Your task to perform on an android device: Open ESPN.com Image 0: 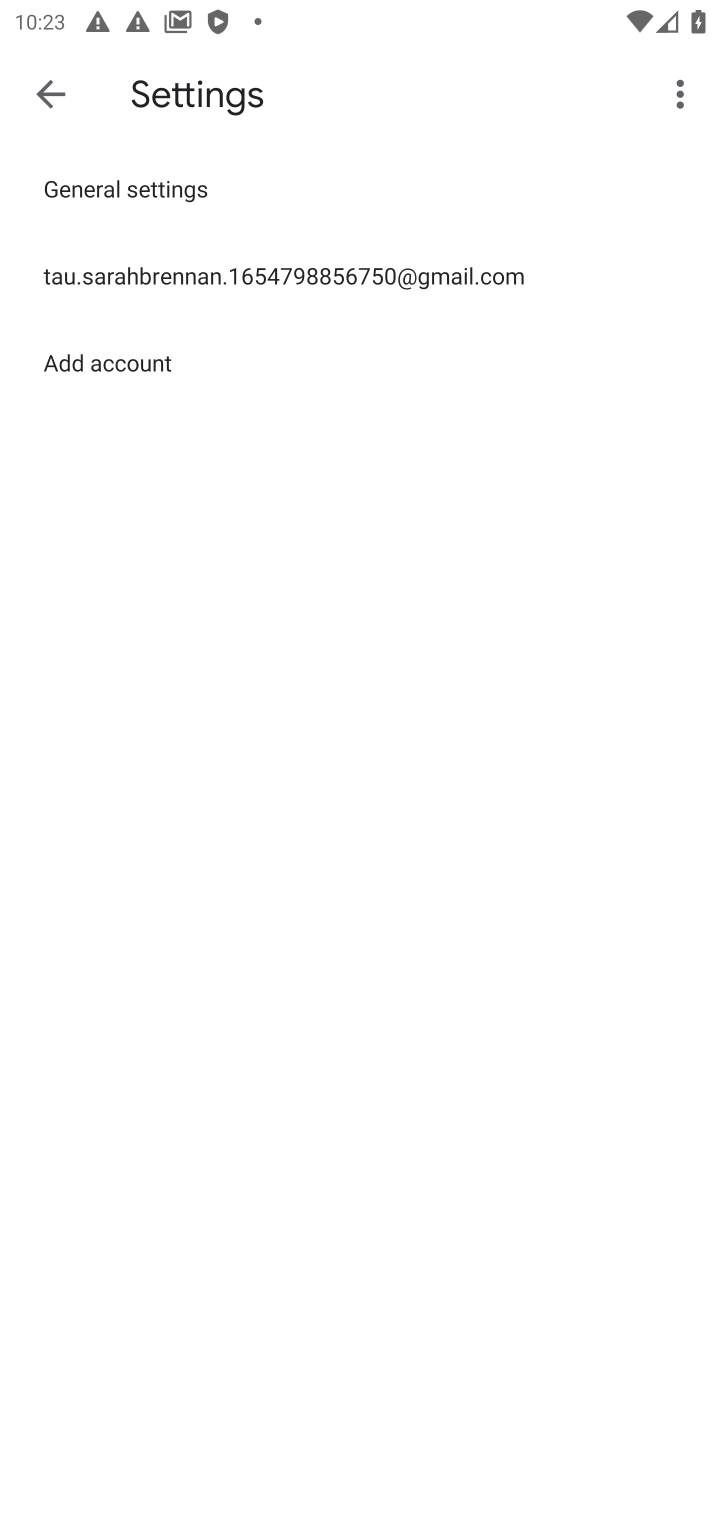
Step 0: press back button
Your task to perform on an android device: Open ESPN.com Image 1: 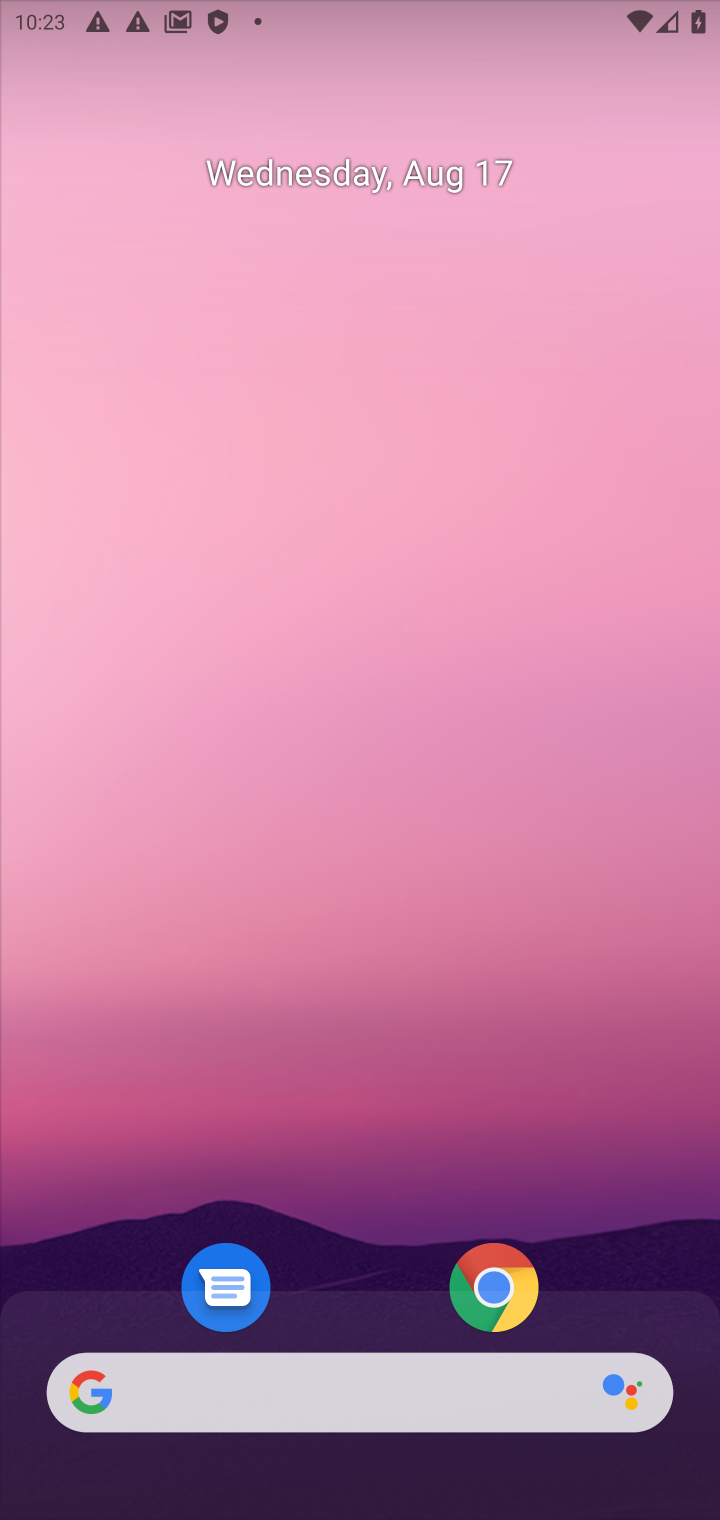
Step 1: press back button
Your task to perform on an android device: Open ESPN.com Image 2: 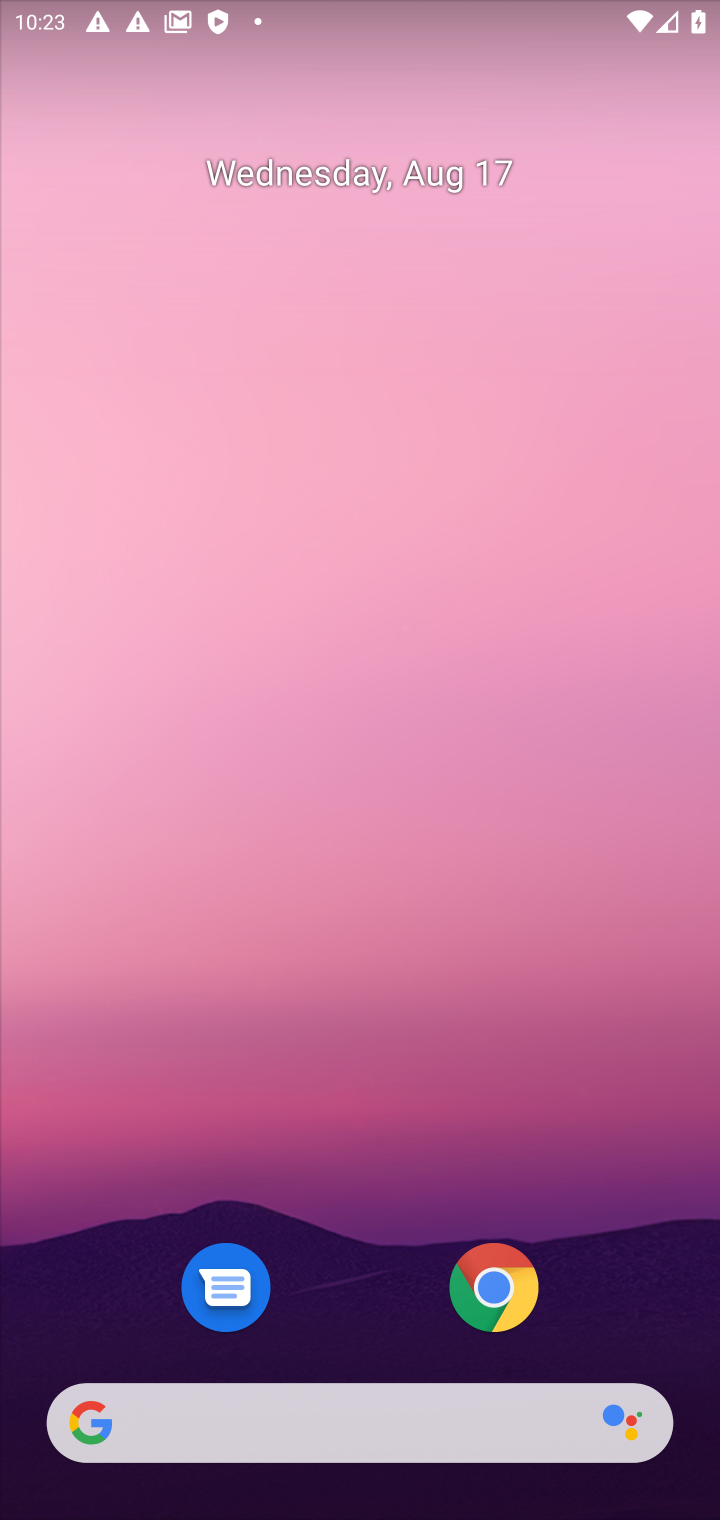
Step 2: click (77, 1429)
Your task to perform on an android device: Open ESPN.com Image 3: 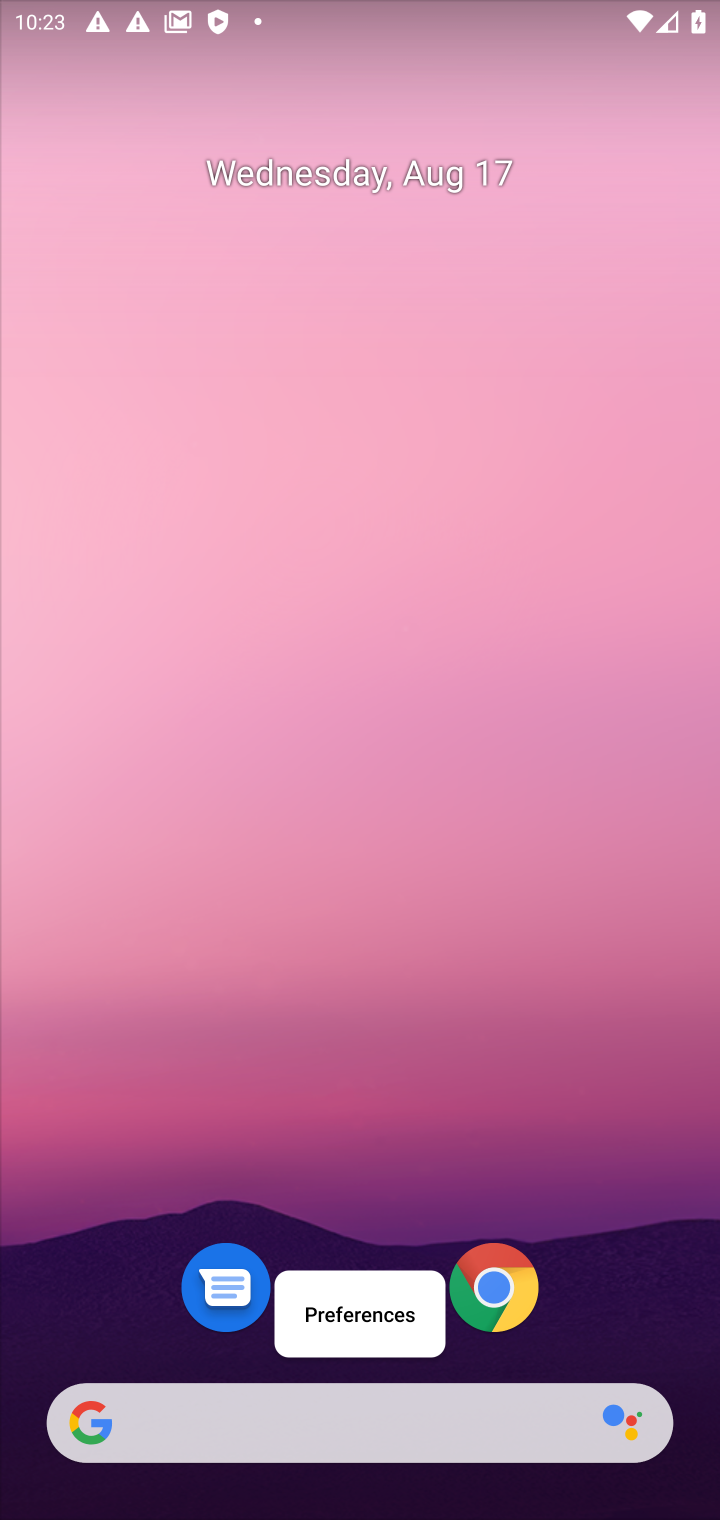
Step 3: click (75, 1513)
Your task to perform on an android device: Open ESPN.com Image 4: 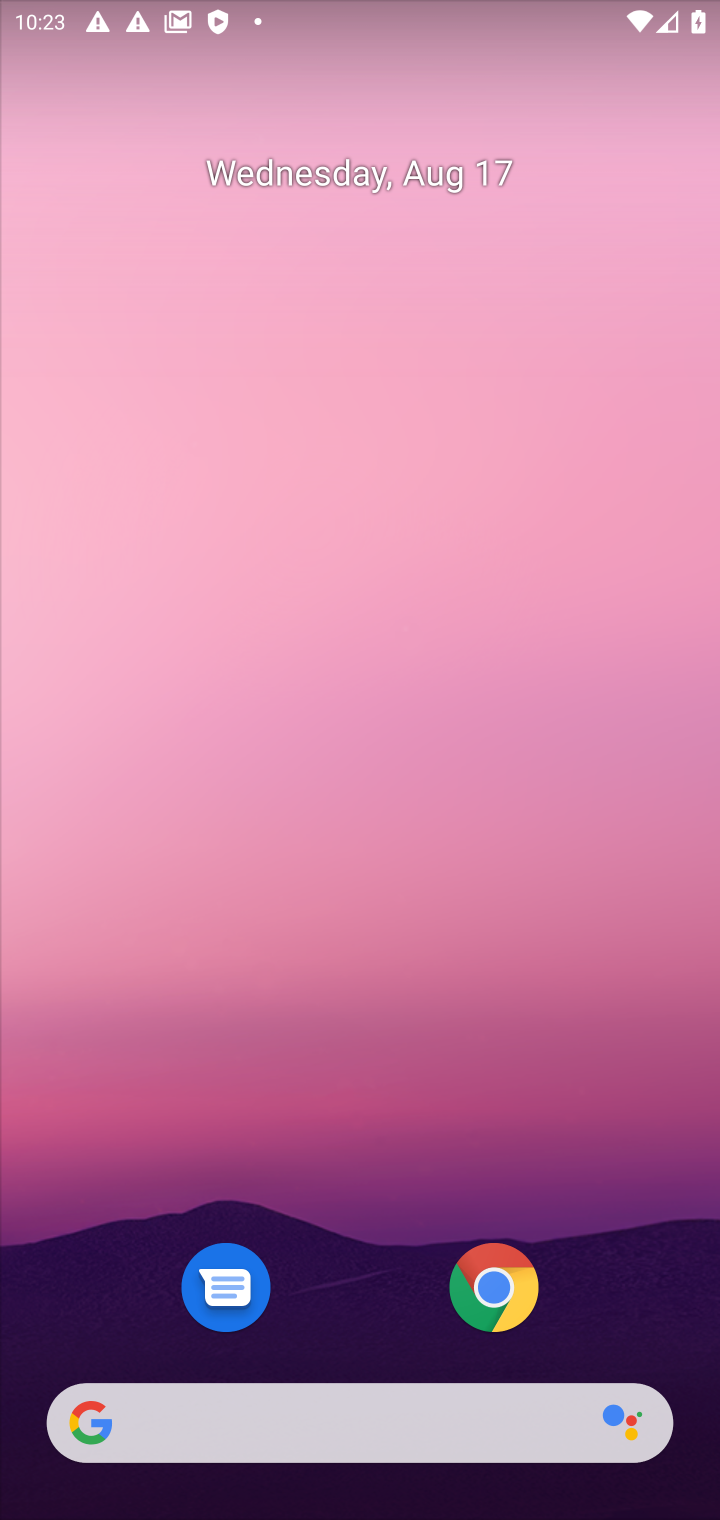
Step 4: click (95, 1422)
Your task to perform on an android device: Open ESPN.com Image 5: 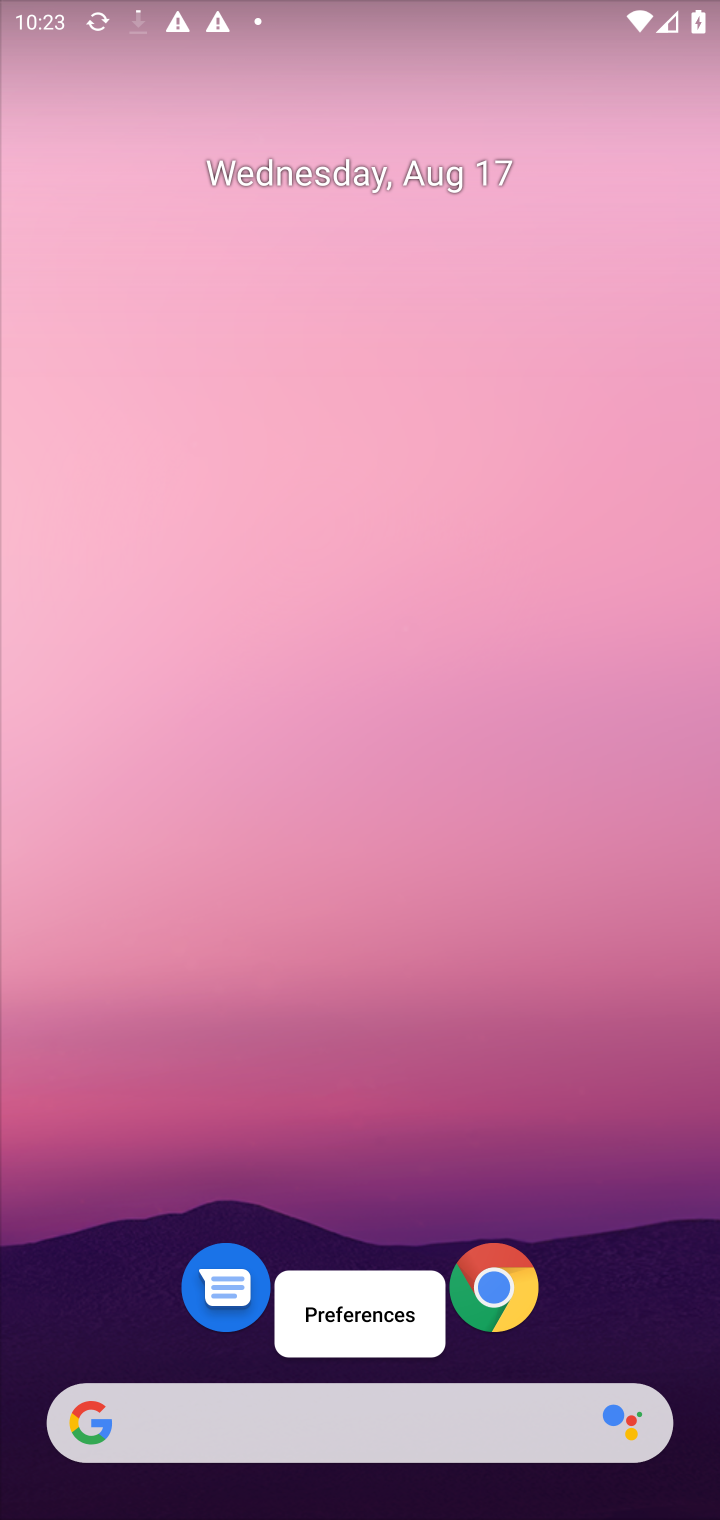
Step 5: click (96, 1419)
Your task to perform on an android device: Open ESPN.com Image 6: 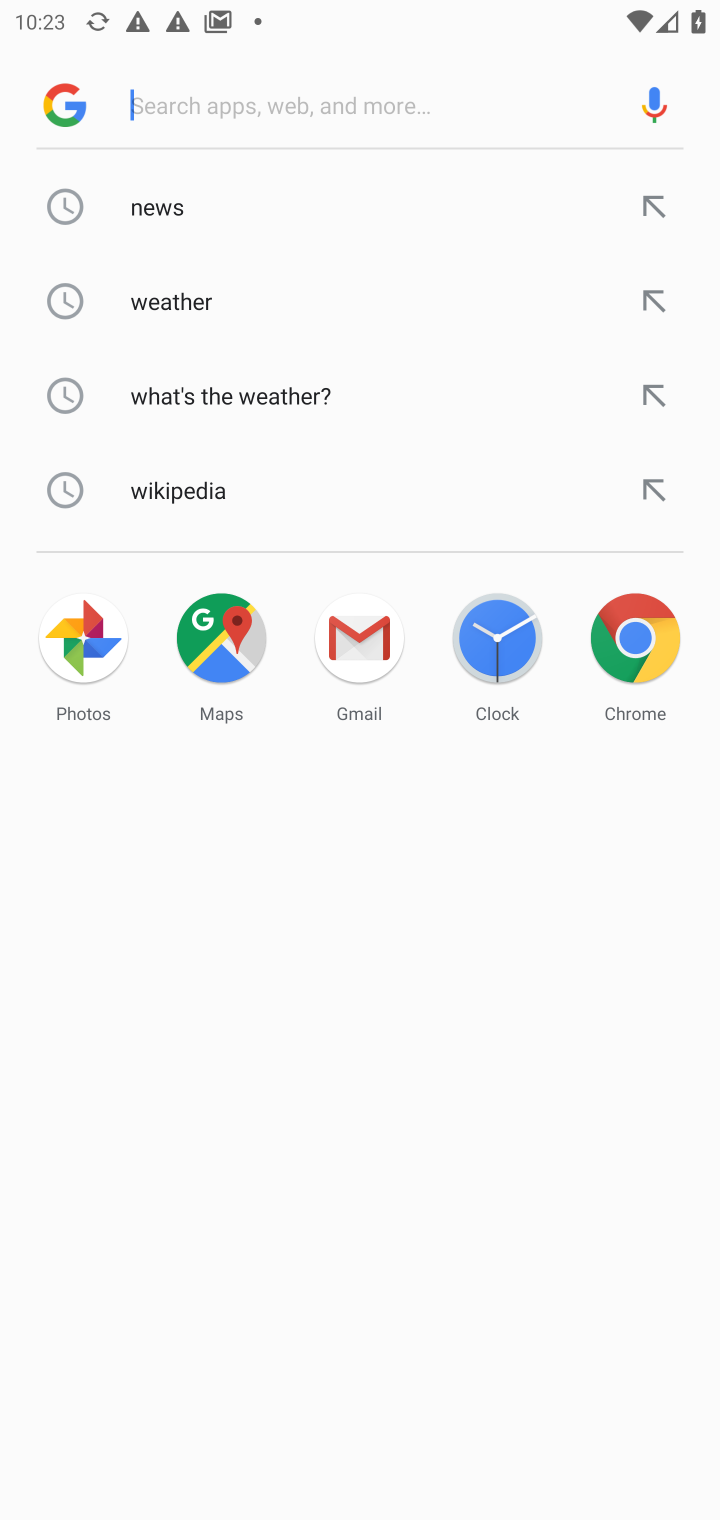
Step 6: click (92, 1428)
Your task to perform on an android device: Open ESPN.com Image 7: 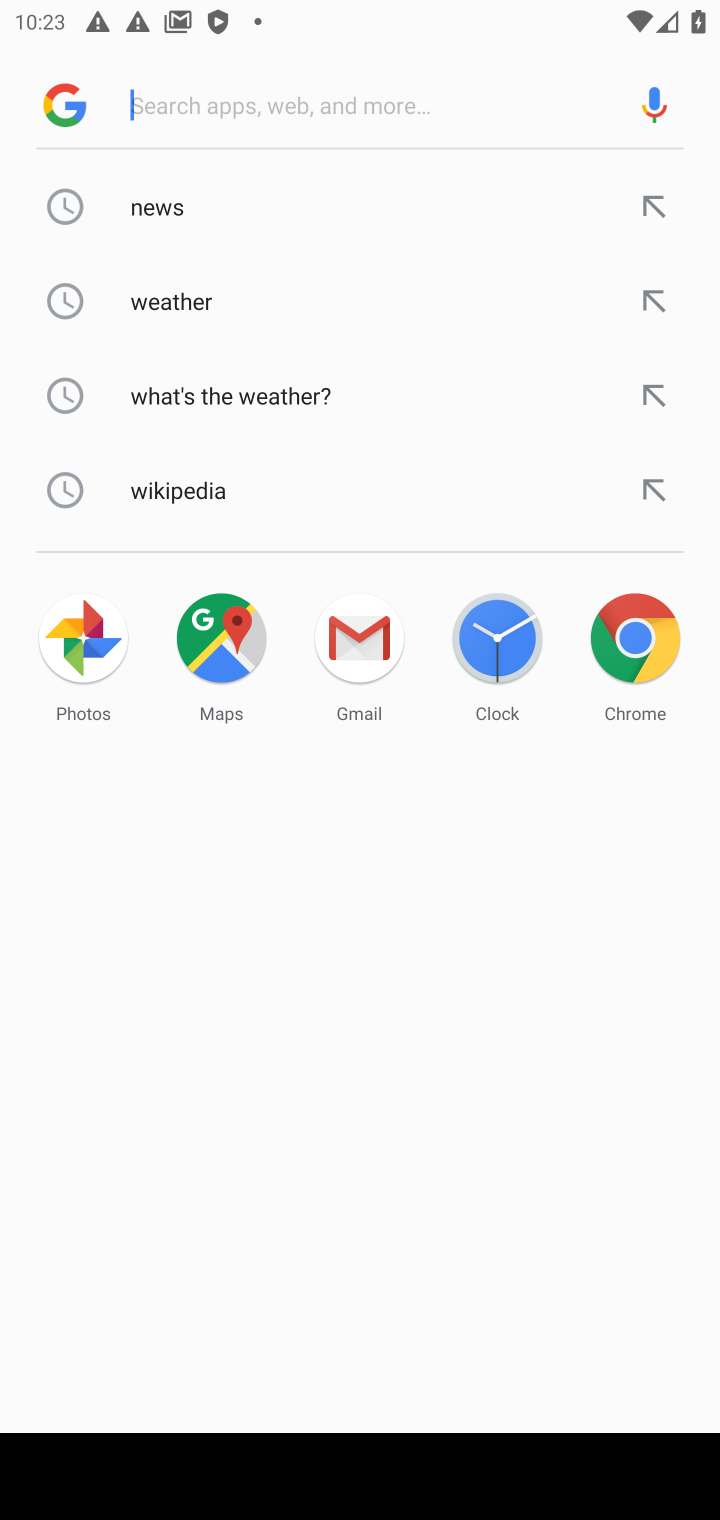
Step 7: type " ESPN.com"
Your task to perform on an android device: Open ESPN.com Image 8: 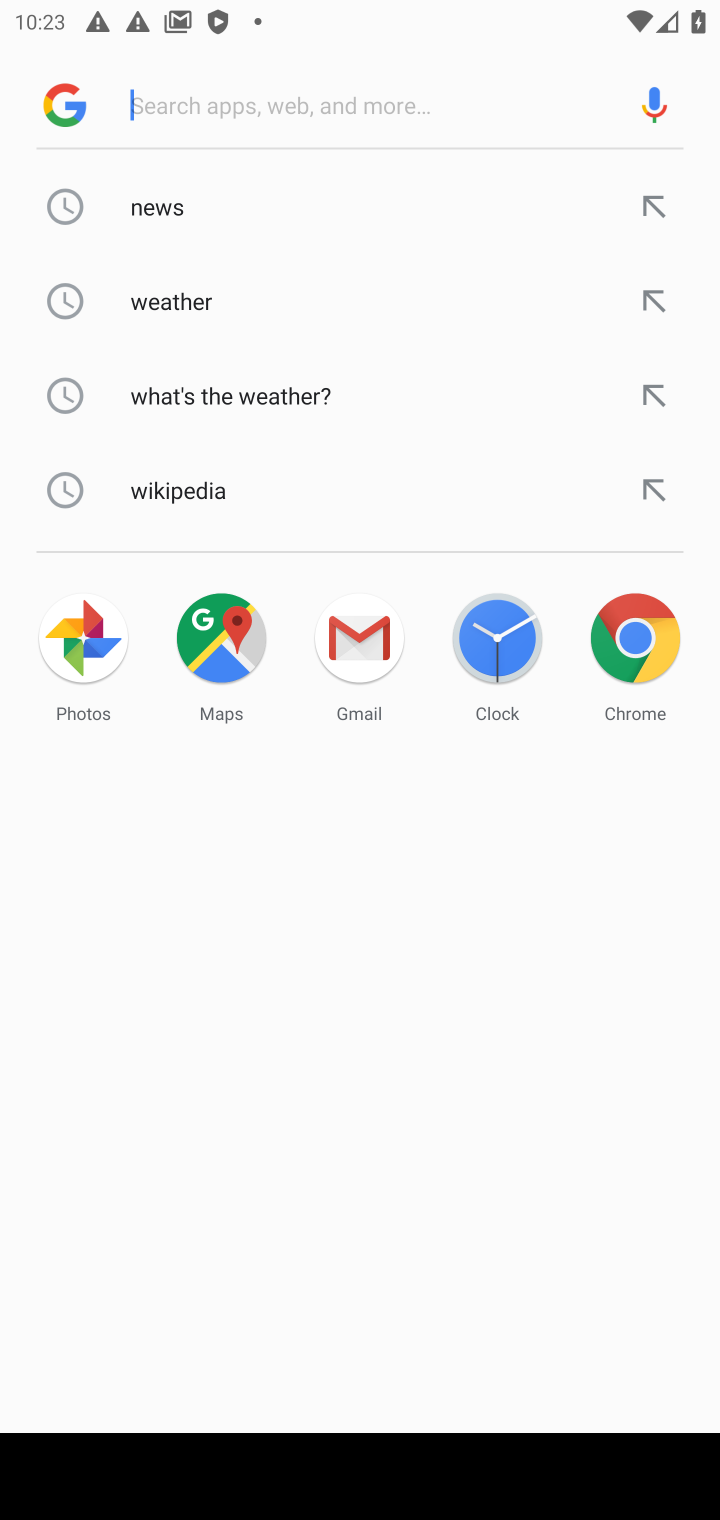
Step 8: click (170, 95)
Your task to perform on an android device: Open ESPN.com Image 9: 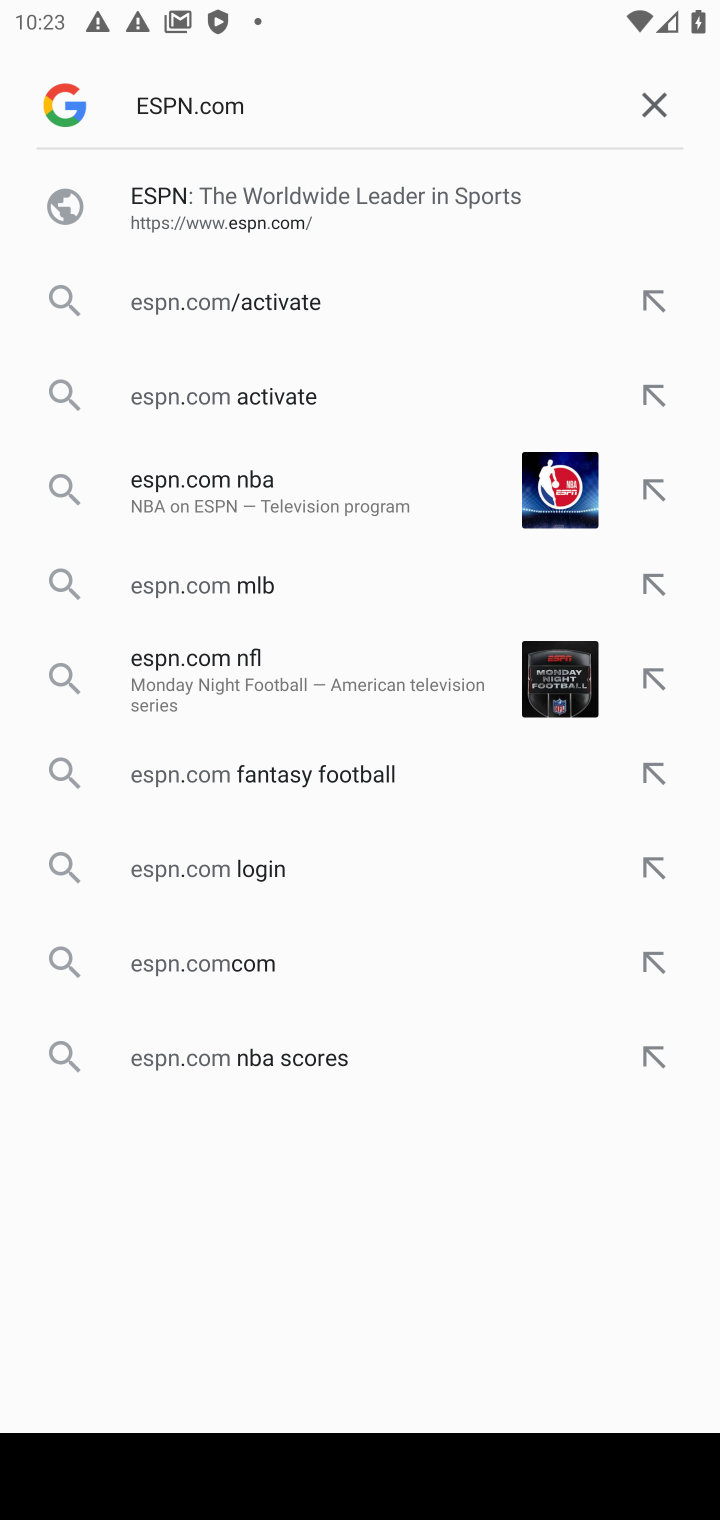
Step 9: press enter
Your task to perform on an android device: Open ESPN.com Image 10: 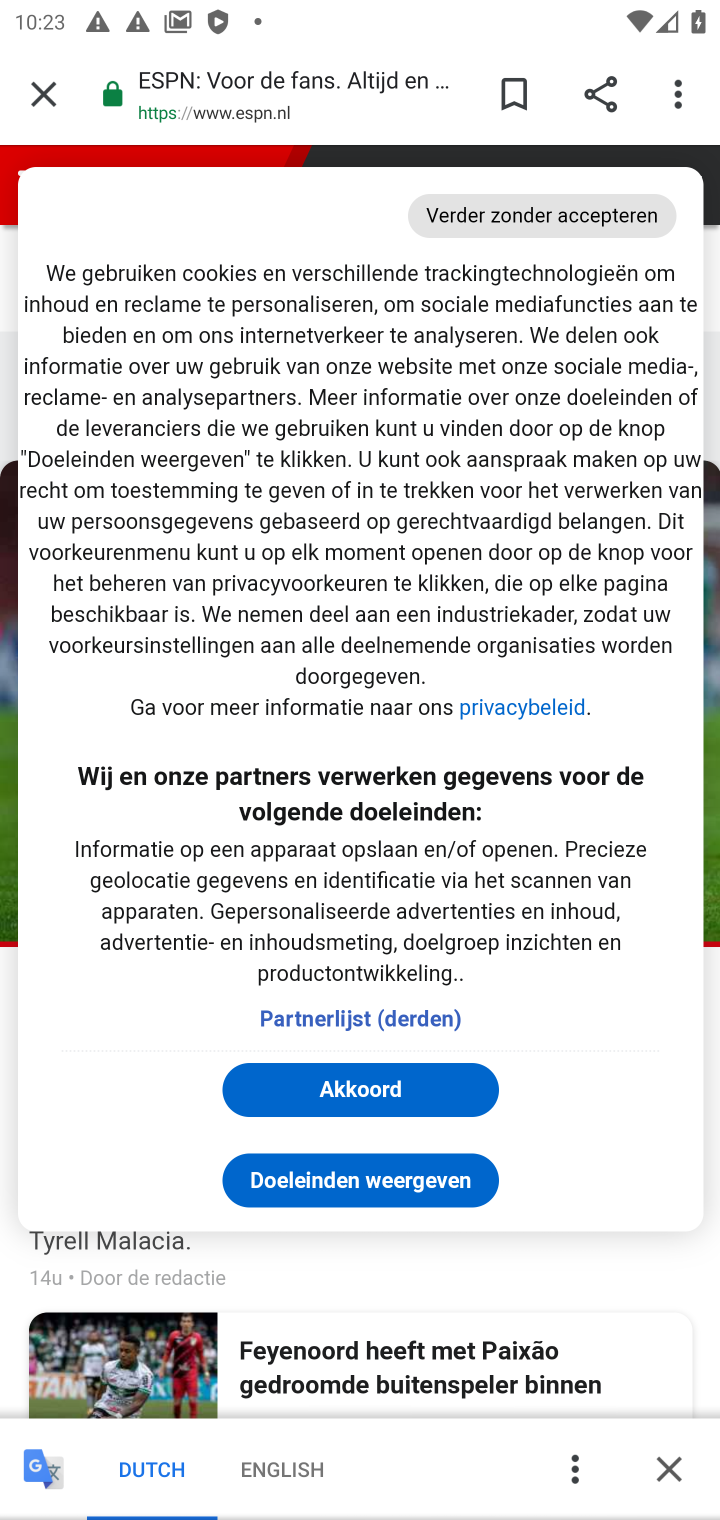
Step 10: task complete